Your task to perform on an android device: Go to network settings Image 0: 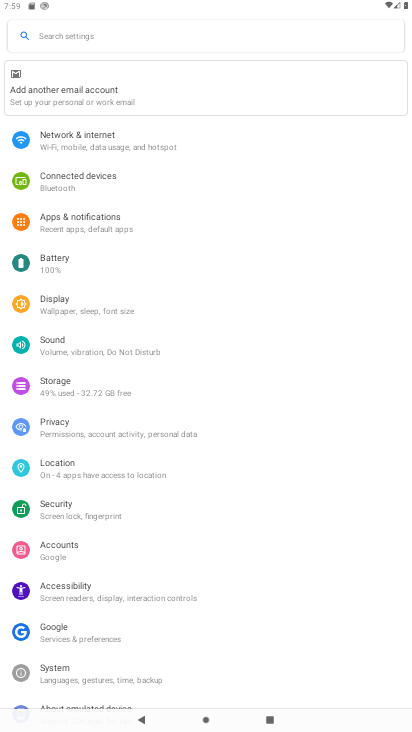
Step 0: click (116, 144)
Your task to perform on an android device: Go to network settings Image 1: 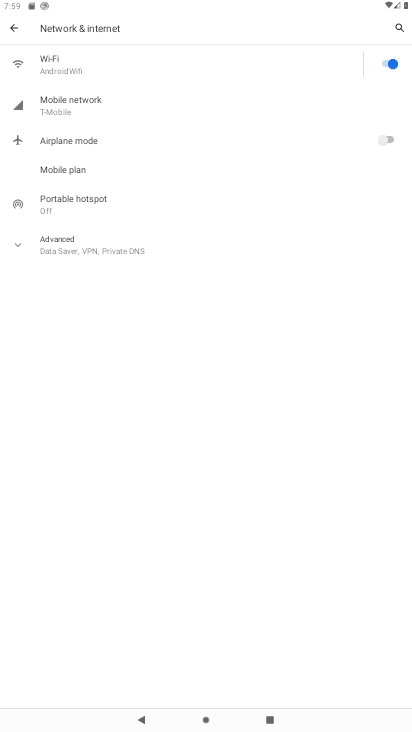
Step 1: click (82, 103)
Your task to perform on an android device: Go to network settings Image 2: 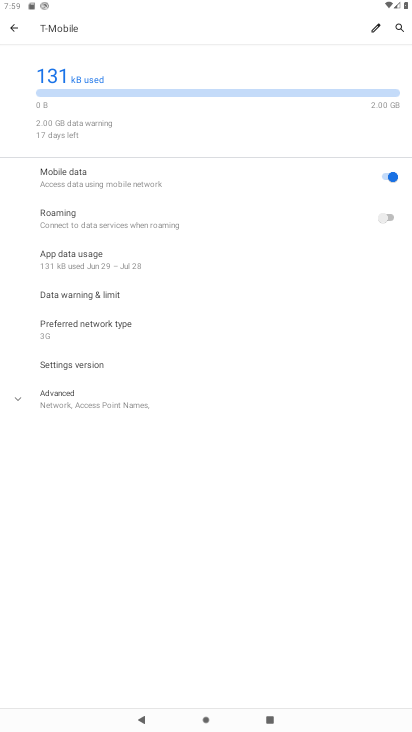
Step 2: task complete